Your task to perform on an android device: change notifications settings Image 0: 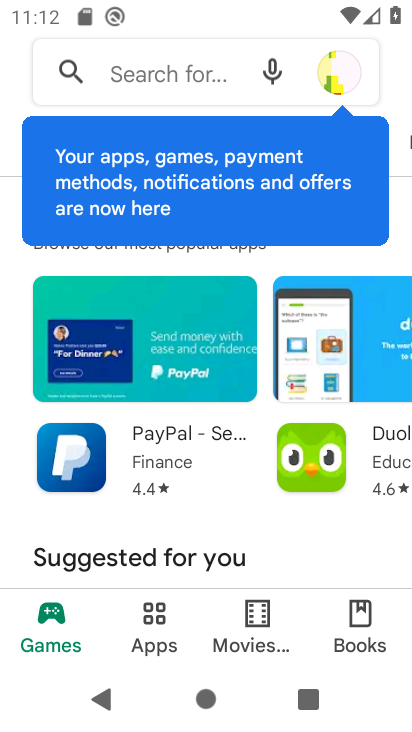
Step 0: press home button
Your task to perform on an android device: change notifications settings Image 1: 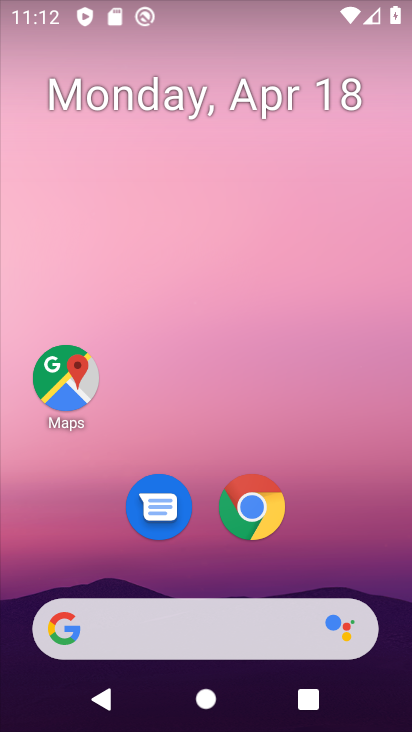
Step 1: drag from (322, 547) to (367, 120)
Your task to perform on an android device: change notifications settings Image 2: 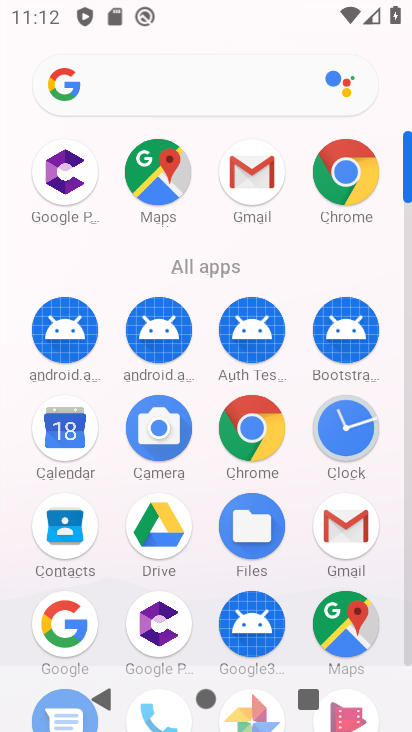
Step 2: drag from (297, 608) to (296, 300)
Your task to perform on an android device: change notifications settings Image 3: 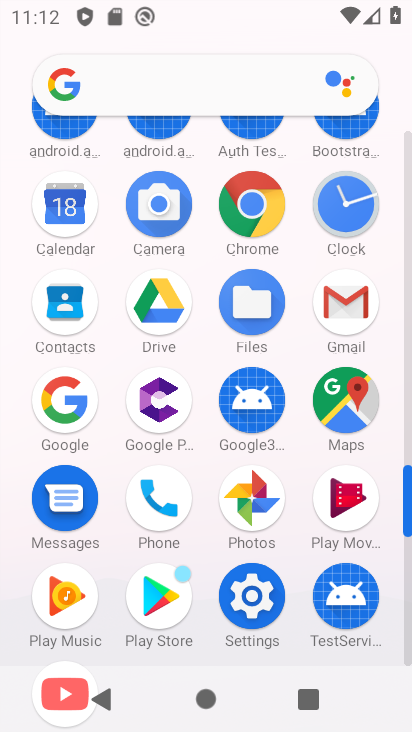
Step 3: click (268, 613)
Your task to perform on an android device: change notifications settings Image 4: 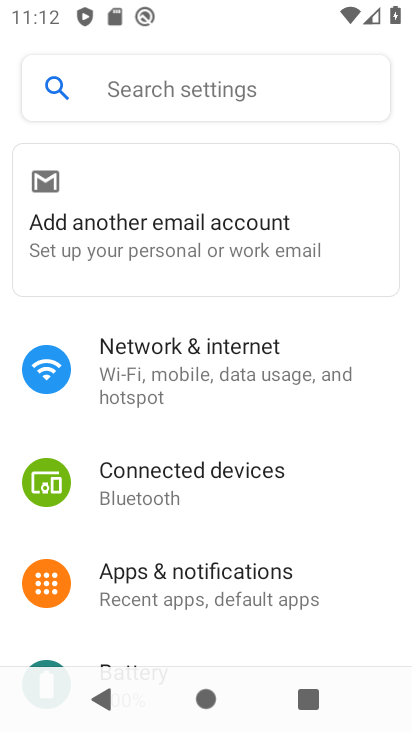
Step 4: click (247, 589)
Your task to perform on an android device: change notifications settings Image 5: 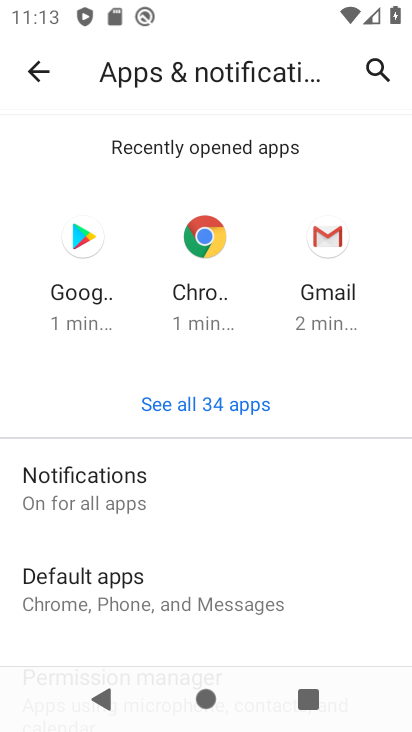
Step 5: click (165, 499)
Your task to perform on an android device: change notifications settings Image 6: 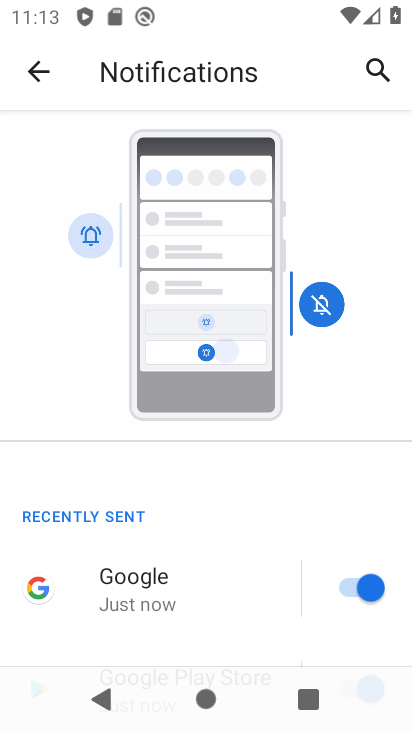
Step 6: drag from (222, 651) to (211, 363)
Your task to perform on an android device: change notifications settings Image 7: 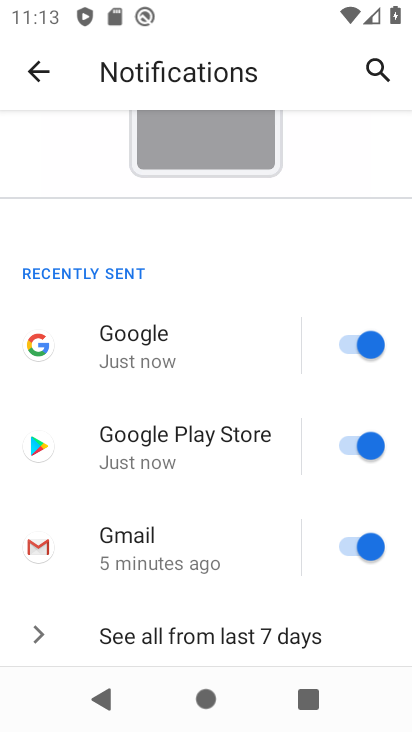
Step 7: click (357, 339)
Your task to perform on an android device: change notifications settings Image 8: 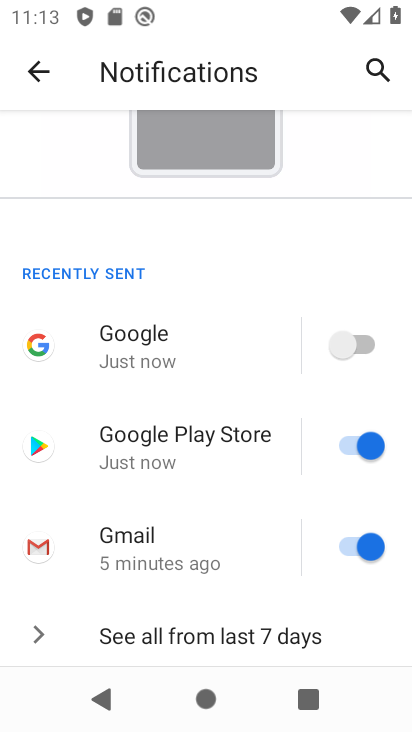
Step 8: task complete